Your task to perform on an android device: open sync settings in chrome Image 0: 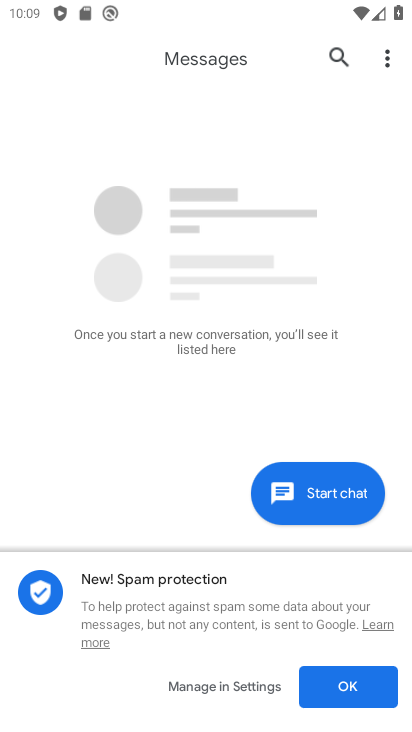
Step 0: press home button
Your task to perform on an android device: open sync settings in chrome Image 1: 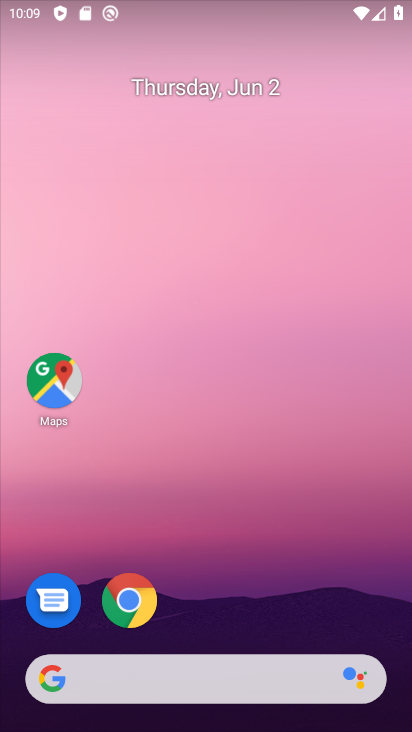
Step 1: click (137, 602)
Your task to perform on an android device: open sync settings in chrome Image 2: 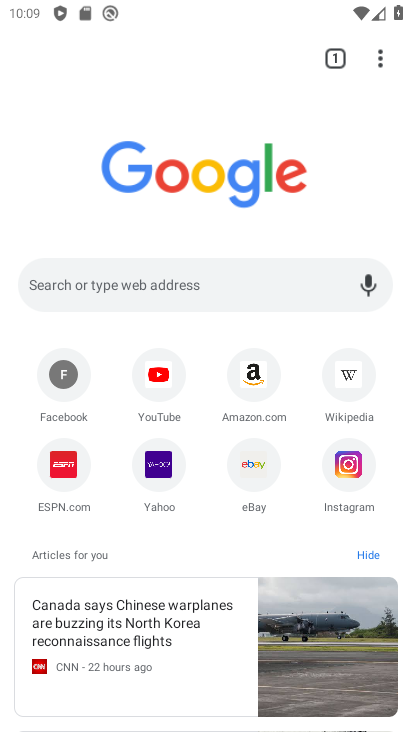
Step 2: click (366, 53)
Your task to perform on an android device: open sync settings in chrome Image 3: 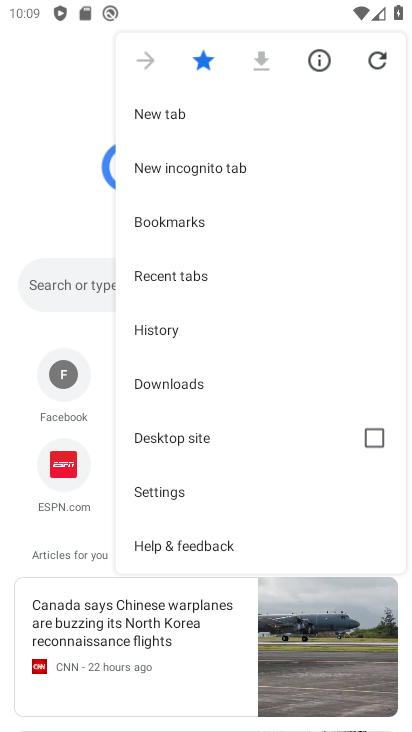
Step 3: click (182, 485)
Your task to perform on an android device: open sync settings in chrome Image 4: 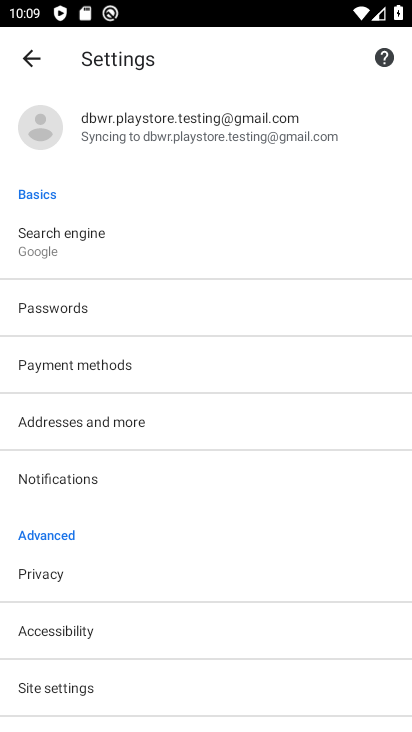
Step 4: drag from (194, 644) to (184, 117)
Your task to perform on an android device: open sync settings in chrome Image 5: 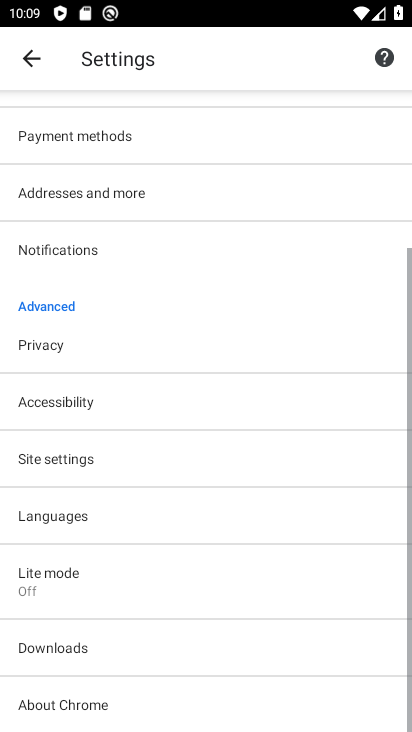
Step 5: click (95, 457)
Your task to perform on an android device: open sync settings in chrome Image 6: 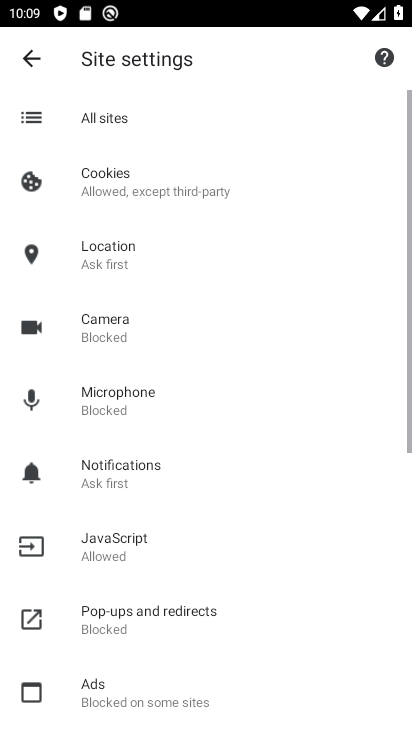
Step 6: drag from (216, 649) to (205, 166)
Your task to perform on an android device: open sync settings in chrome Image 7: 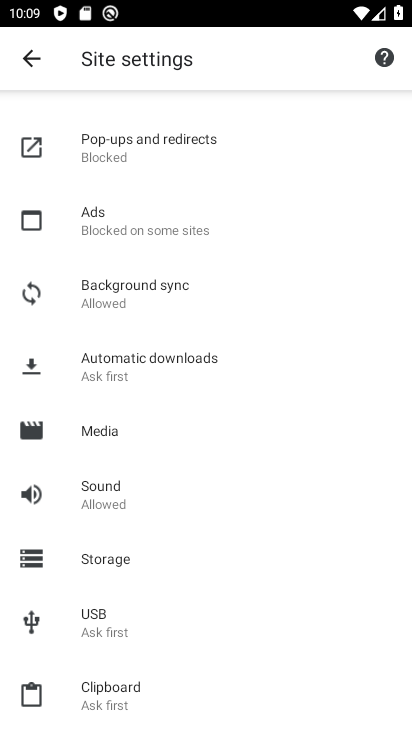
Step 7: click (162, 296)
Your task to perform on an android device: open sync settings in chrome Image 8: 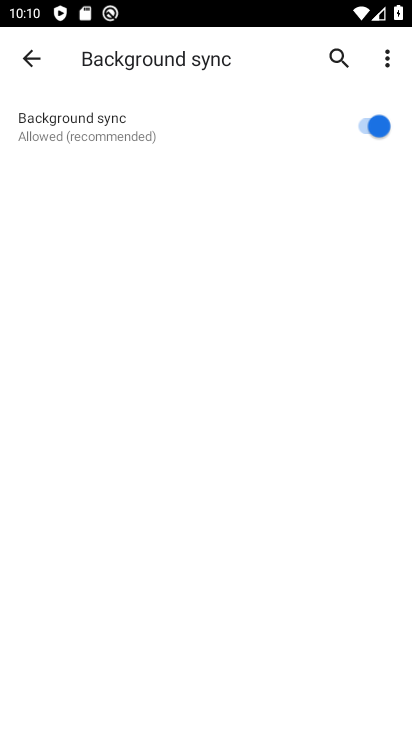
Step 8: task complete